Your task to perform on an android device: toggle javascript in the chrome app Image 0: 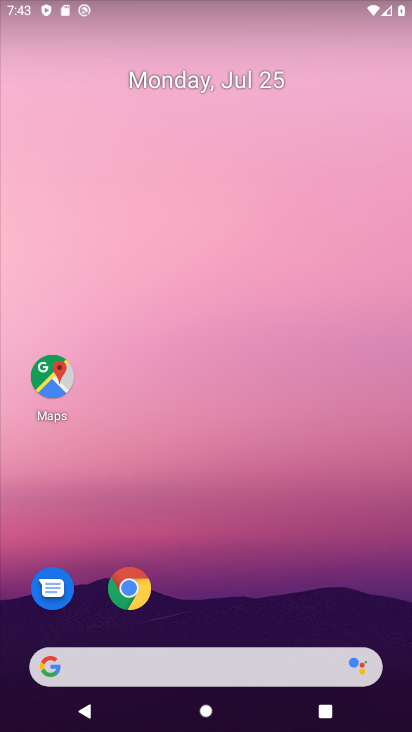
Step 0: click (132, 591)
Your task to perform on an android device: toggle javascript in the chrome app Image 1: 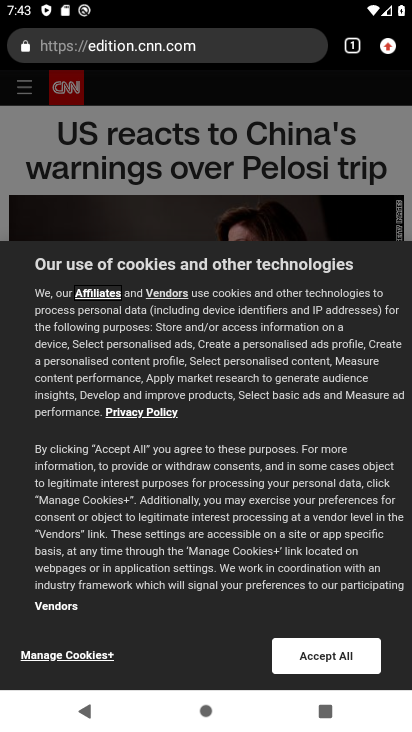
Step 1: click (388, 47)
Your task to perform on an android device: toggle javascript in the chrome app Image 2: 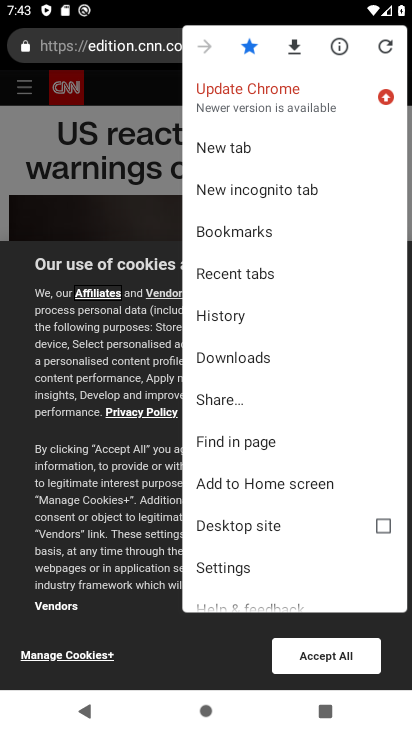
Step 2: click (265, 565)
Your task to perform on an android device: toggle javascript in the chrome app Image 3: 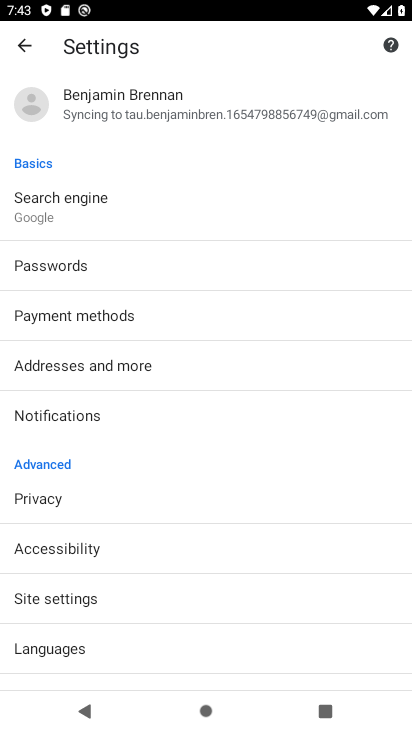
Step 3: click (59, 605)
Your task to perform on an android device: toggle javascript in the chrome app Image 4: 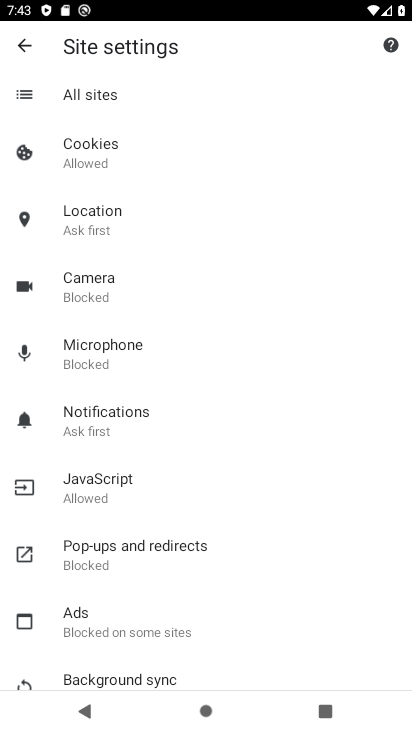
Step 4: click (108, 481)
Your task to perform on an android device: toggle javascript in the chrome app Image 5: 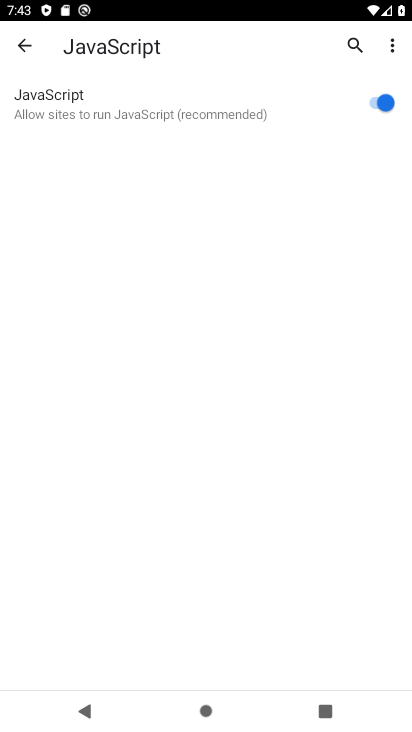
Step 5: click (378, 103)
Your task to perform on an android device: toggle javascript in the chrome app Image 6: 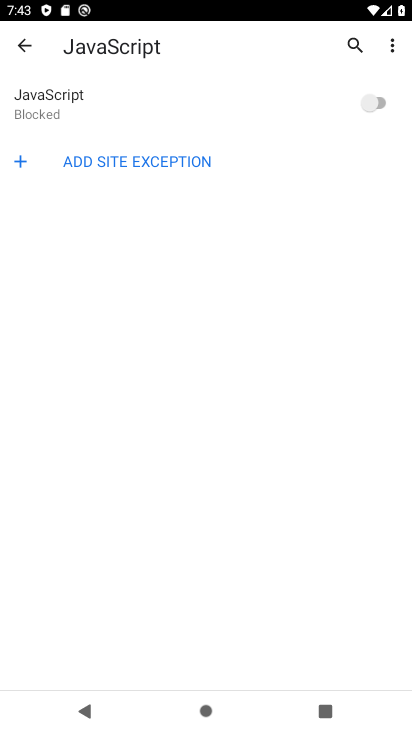
Step 6: task complete